Your task to perform on an android device: toggle javascript in the chrome app Image 0: 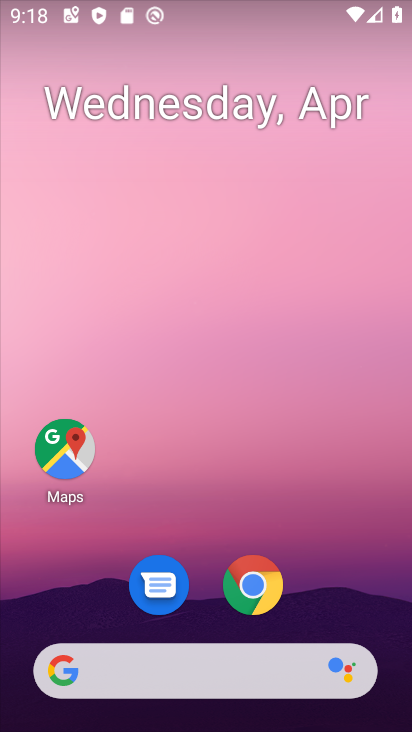
Step 0: click (263, 575)
Your task to perform on an android device: toggle javascript in the chrome app Image 1: 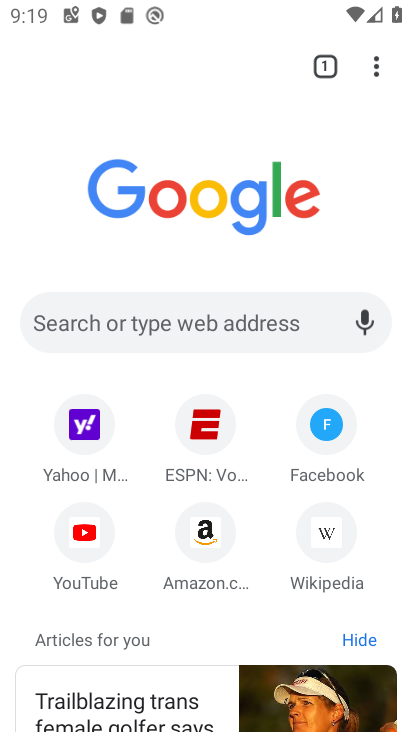
Step 1: click (367, 67)
Your task to perform on an android device: toggle javascript in the chrome app Image 2: 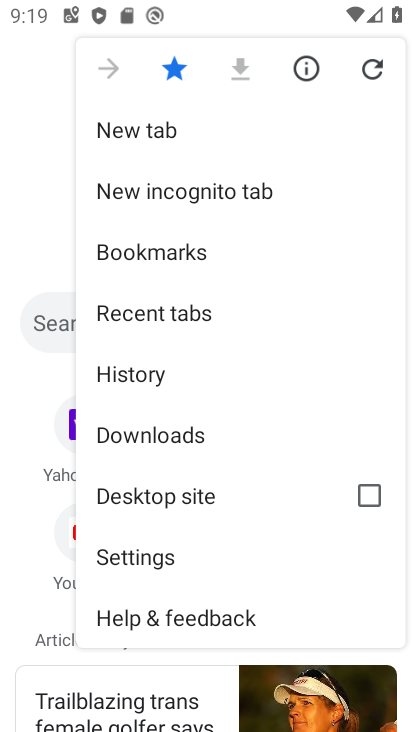
Step 2: click (200, 550)
Your task to perform on an android device: toggle javascript in the chrome app Image 3: 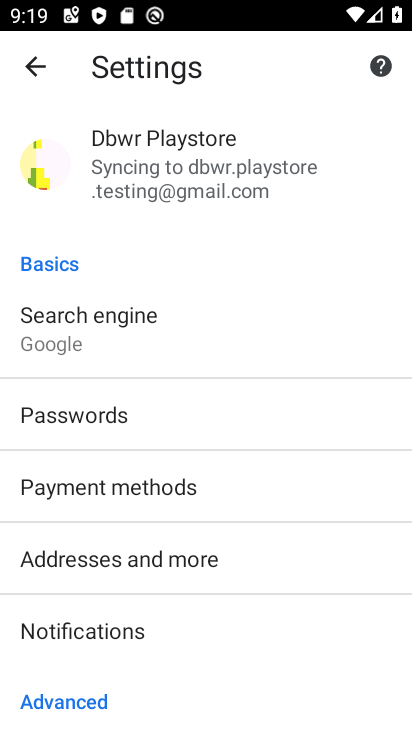
Step 3: drag from (200, 550) to (217, 321)
Your task to perform on an android device: toggle javascript in the chrome app Image 4: 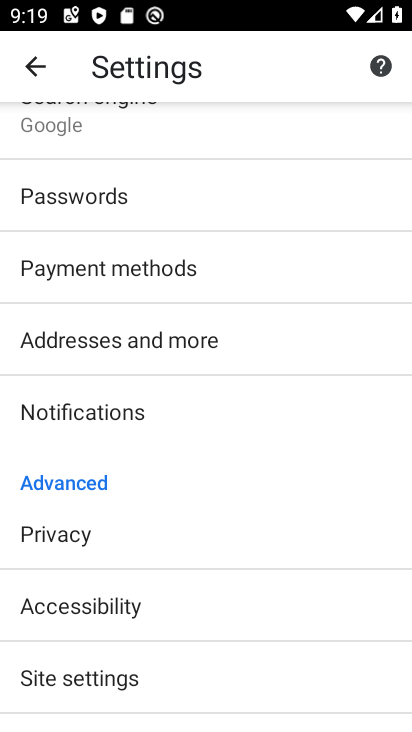
Step 4: click (179, 673)
Your task to perform on an android device: toggle javascript in the chrome app Image 5: 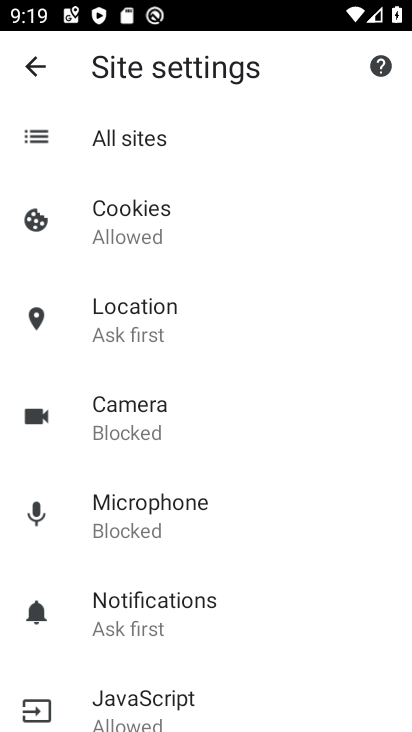
Step 5: click (187, 692)
Your task to perform on an android device: toggle javascript in the chrome app Image 6: 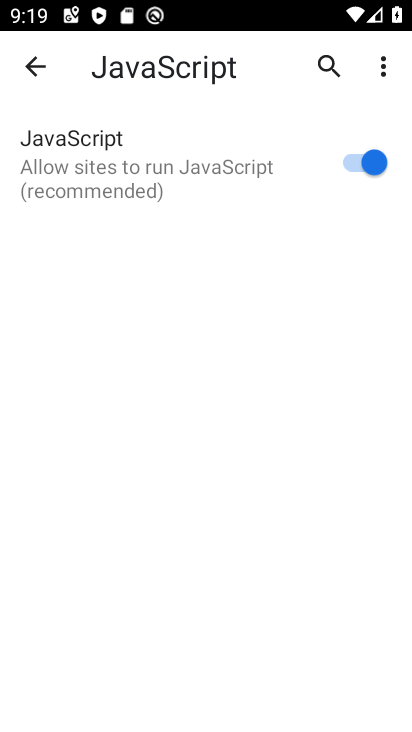
Step 6: click (349, 158)
Your task to perform on an android device: toggle javascript in the chrome app Image 7: 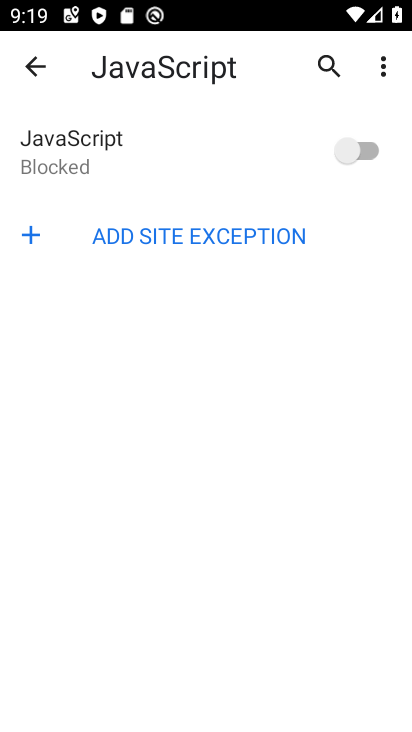
Step 7: task complete